Your task to perform on an android device: turn off location history Image 0: 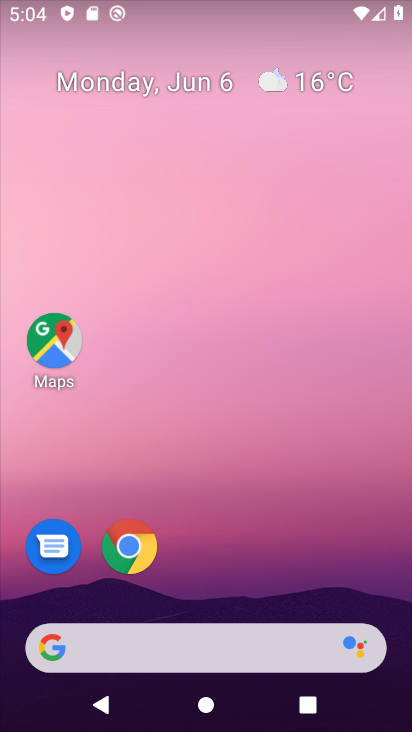
Step 0: drag from (234, 696) to (234, 159)
Your task to perform on an android device: turn off location history Image 1: 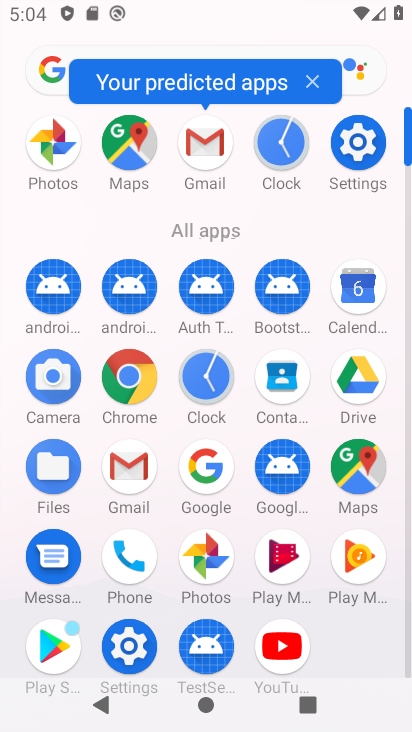
Step 1: click (363, 151)
Your task to perform on an android device: turn off location history Image 2: 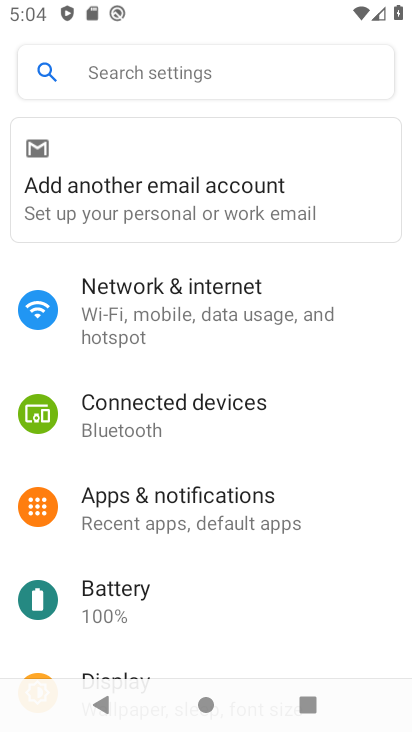
Step 2: drag from (157, 638) to (169, 311)
Your task to perform on an android device: turn off location history Image 3: 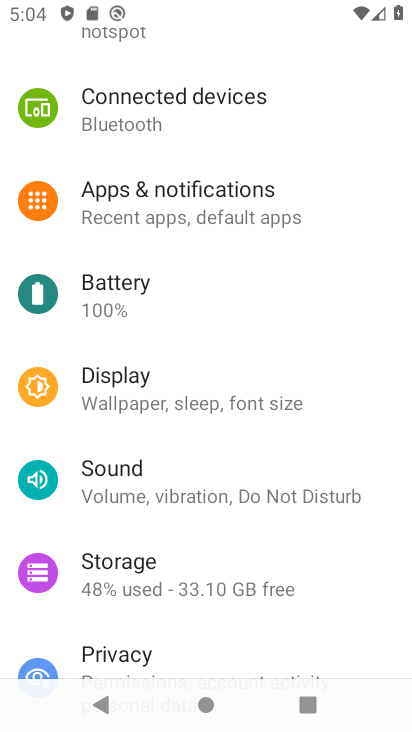
Step 3: drag from (156, 631) to (156, 305)
Your task to perform on an android device: turn off location history Image 4: 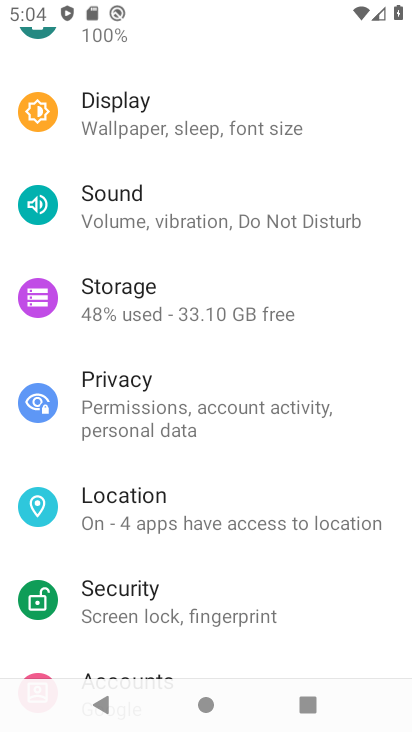
Step 4: drag from (143, 609) to (161, 287)
Your task to perform on an android device: turn off location history Image 5: 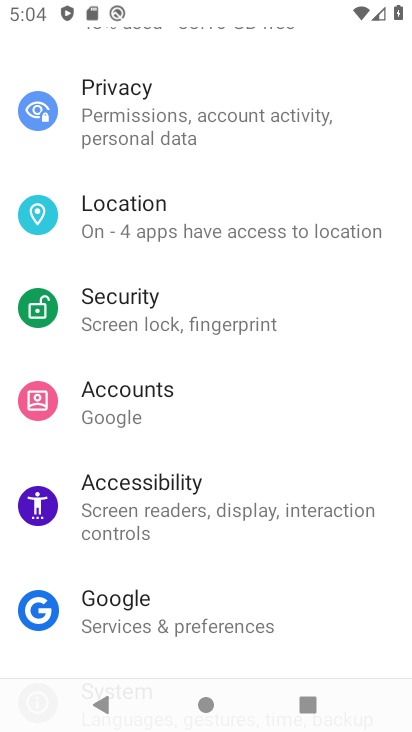
Step 5: click (135, 216)
Your task to perform on an android device: turn off location history Image 6: 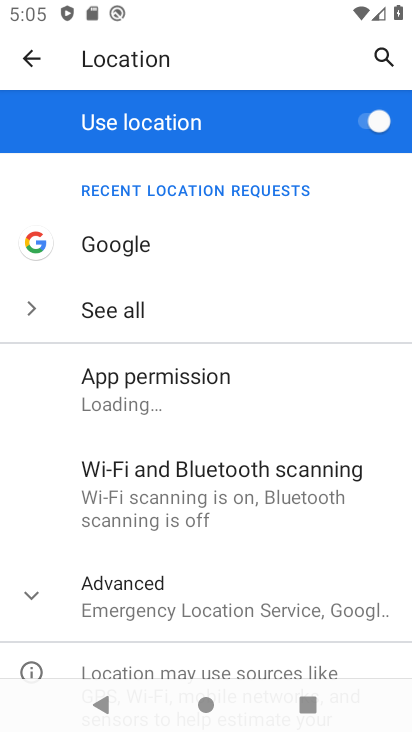
Step 6: click (127, 602)
Your task to perform on an android device: turn off location history Image 7: 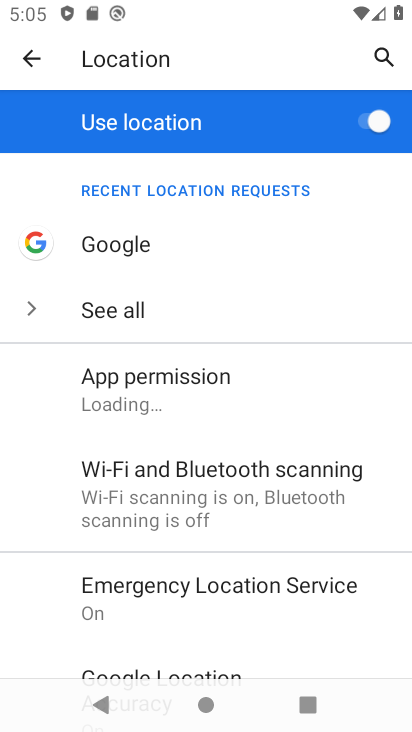
Step 7: drag from (161, 626) to (165, 314)
Your task to perform on an android device: turn off location history Image 8: 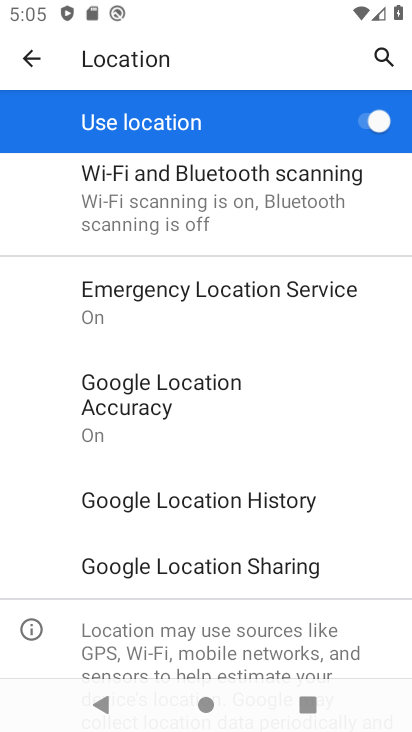
Step 8: click (199, 491)
Your task to perform on an android device: turn off location history Image 9: 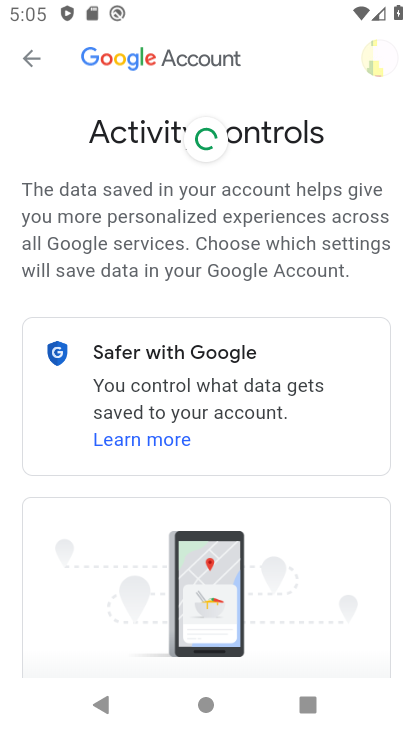
Step 9: drag from (267, 662) to (240, 321)
Your task to perform on an android device: turn off location history Image 10: 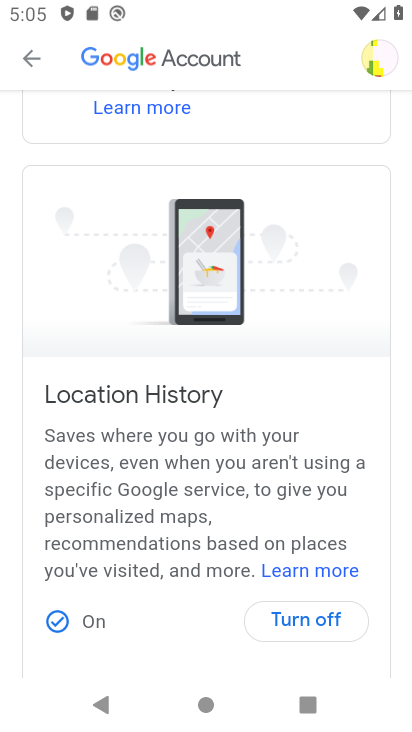
Step 10: click (296, 619)
Your task to perform on an android device: turn off location history Image 11: 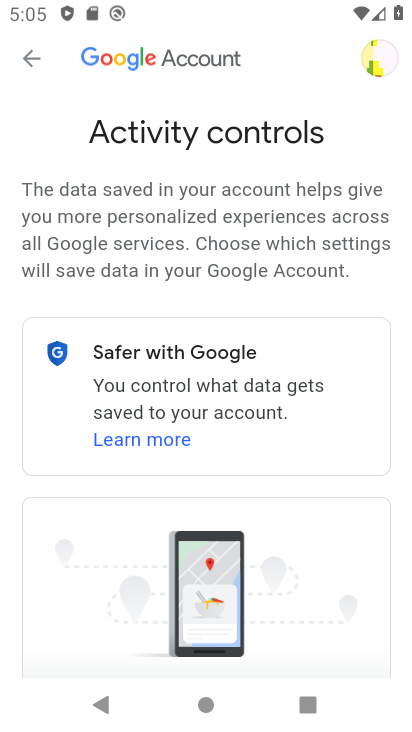
Step 11: drag from (288, 593) to (273, 287)
Your task to perform on an android device: turn off location history Image 12: 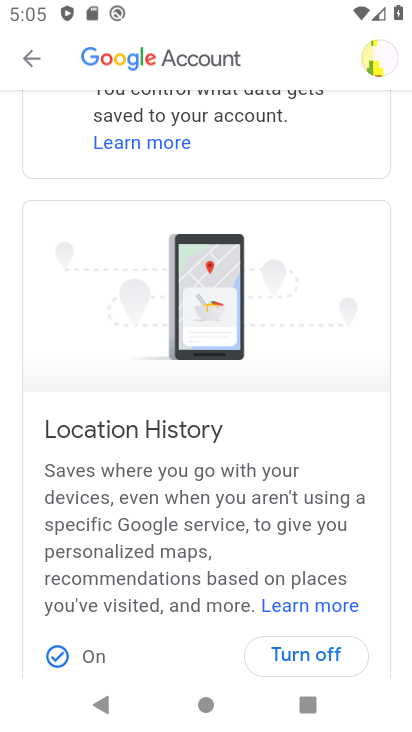
Step 12: click (296, 653)
Your task to perform on an android device: turn off location history Image 13: 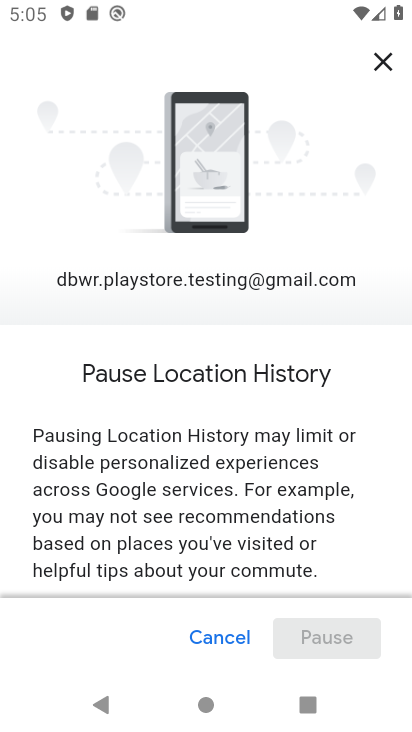
Step 13: drag from (313, 576) to (273, 259)
Your task to perform on an android device: turn off location history Image 14: 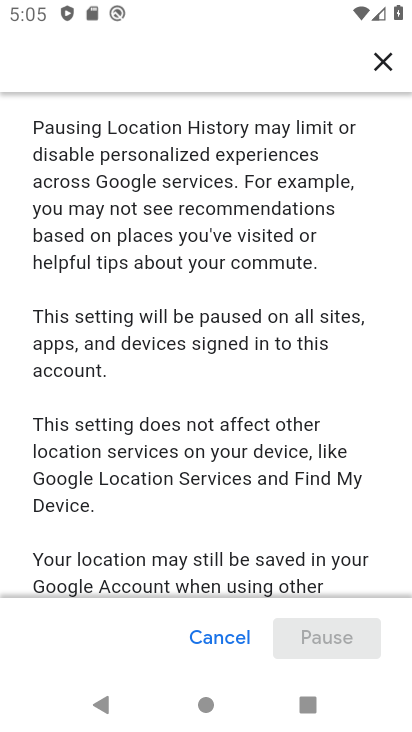
Step 14: drag from (295, 547) to (262, 205)
Your task to perform on an android device: turn off location history Image 15: 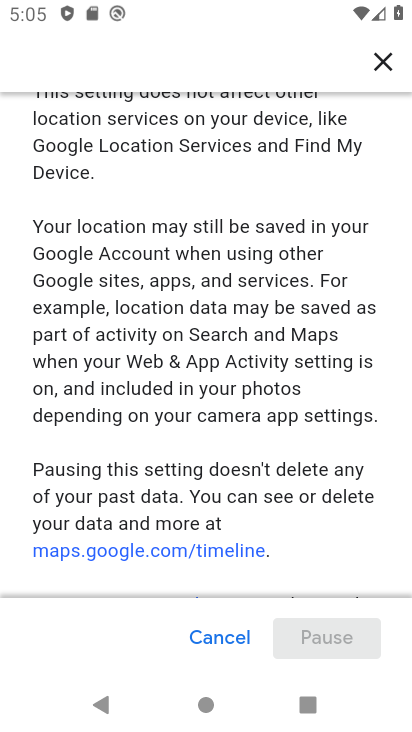
Step 15: click (331, 640)
Your task to perform on an android device: turn off location history Image 16: 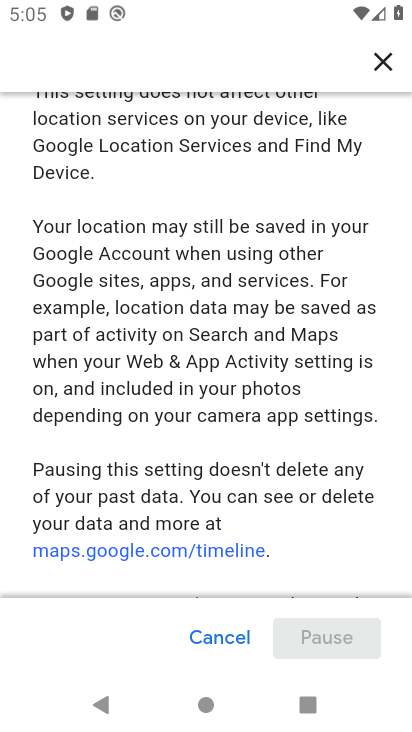
Step 16: drag from (303, 568) to (288, 237)
Your task to perform on an android device: turn off location history Image 17: 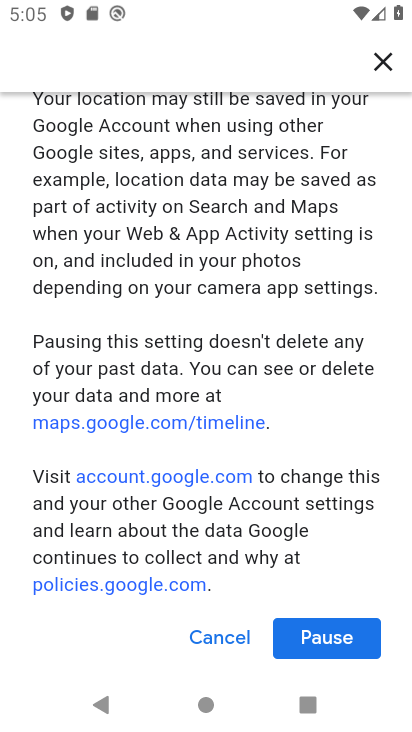
Step 17: click (314, 632)
Your task to perform on an android device: turn off location history Image 18: 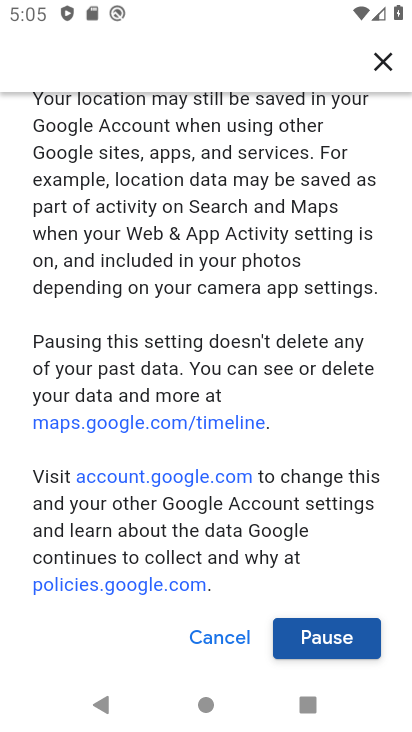
Step 18: click (337, 635)
Your task to perform on an android device: turn off location history Image 19: 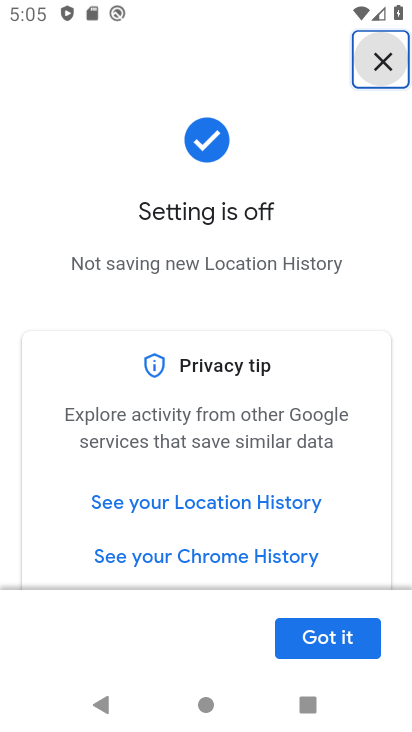
Step 19: click (337, 635)
Your task to perform on an android device: turn off location history Image 20: 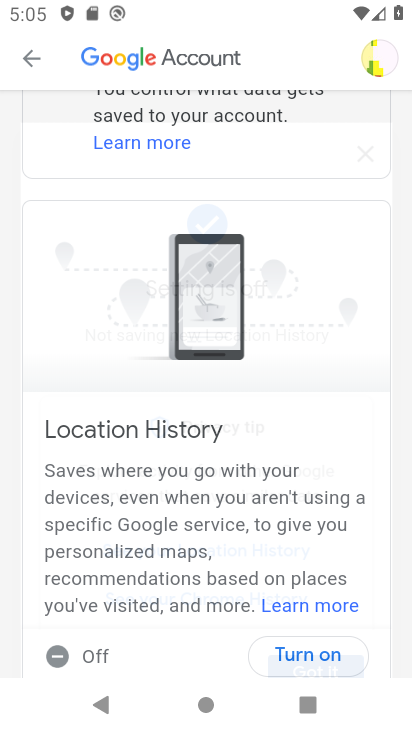
Step 20: task complete